Your task to perform on an android device: Open network settings Image 0: 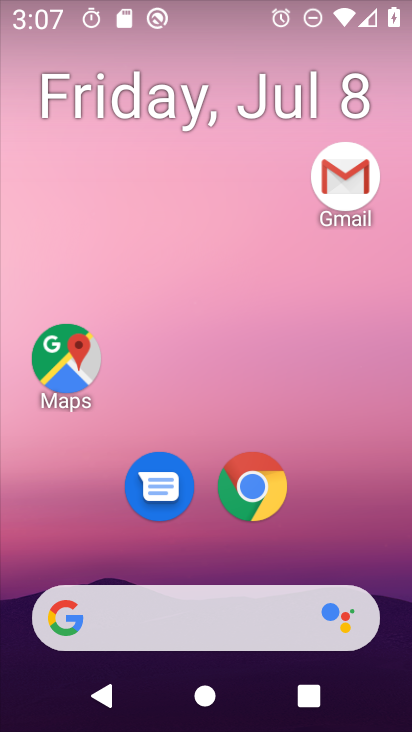
Step 0: drag from (331, 540) to (355, 111)
Your task to perform on an android device: Open network settings Image 1: 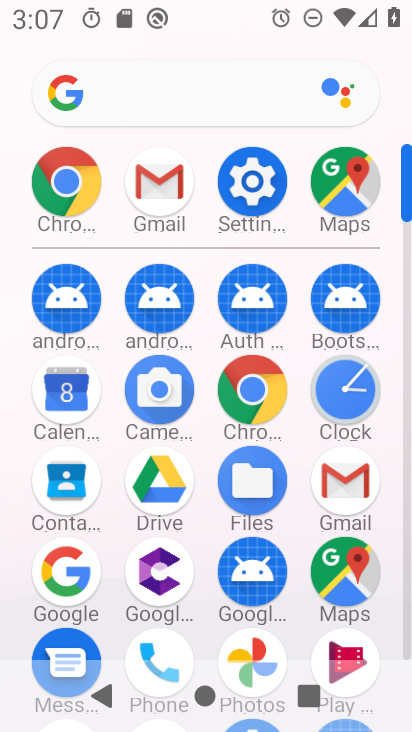
Step 1: click (265, 203)
Your task to perform on an android device: Open network settings Image 2: 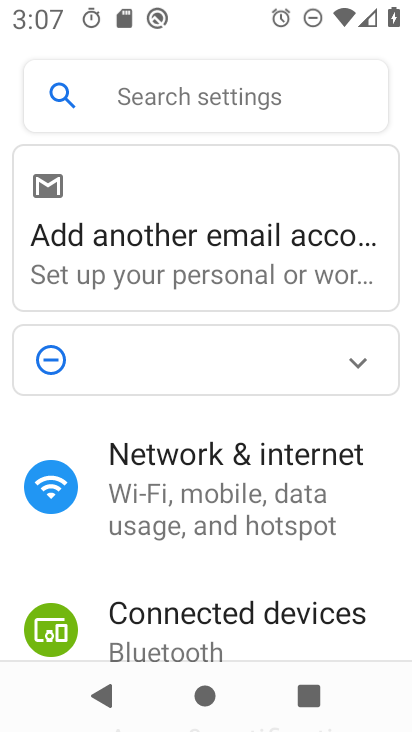
Step 2: drag from (359, 536) to (380, 334)
Your task to perform on an android device: Open network settings Image 3: 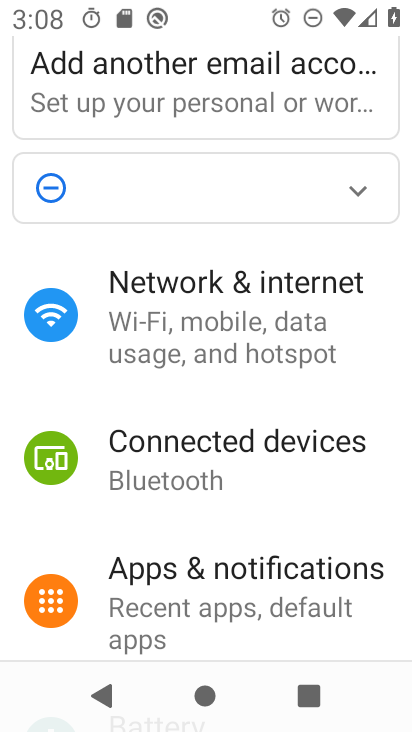
Step 3: drag from (380, 520) to (381, 309)
Your task to perform on an android device: Open network settings Image 4: 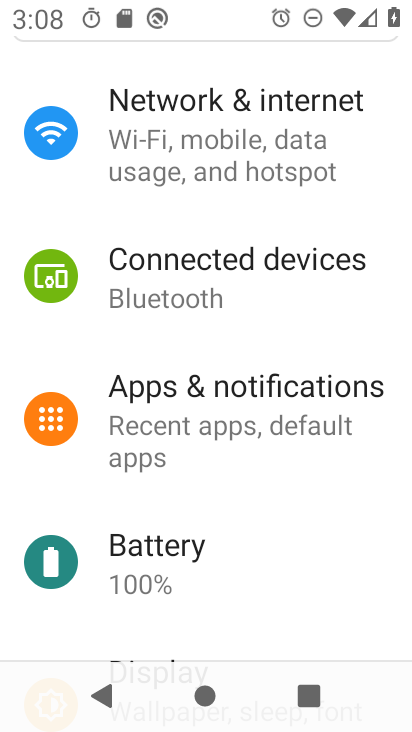
Step 4: drag from (354, 547) to (337, 416)
Your task to perform on an android device: Open network settings Image 5: 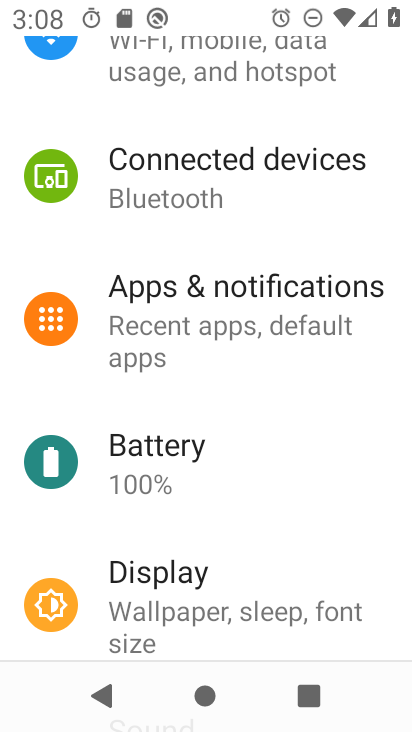
Step 5: drag from (350, 532) to (349, 376)
Your task to perform on an android device: Open network settings Image 6: 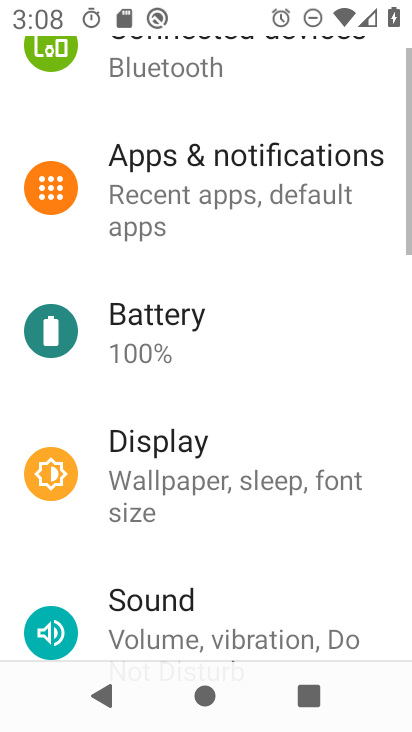
Step 6: drag from (342, 556) to (328, 359)
Your task to perform on an android device: Open network settings Image 7: 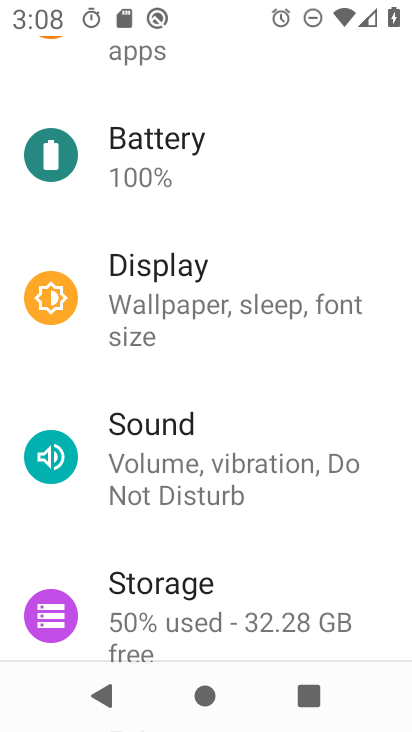
Step 7: drag from (346, 539) to (339, 295)
Your task to perform on an android device: Open network settings Image 8: 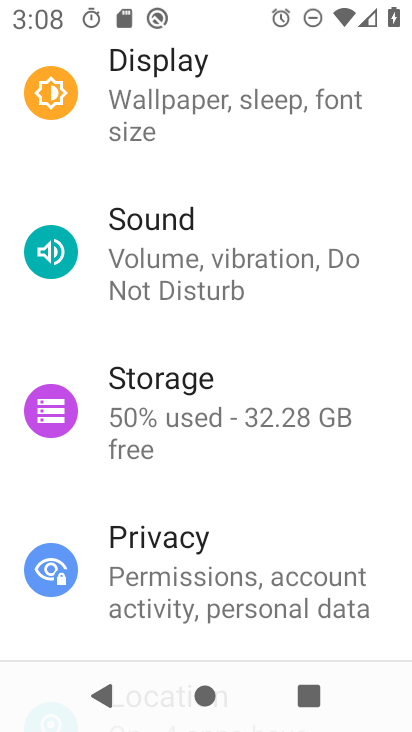
Step 8: drag from (361, 198) to (334, 396)
Your task to perform on an android device: Open network settings Image 9: 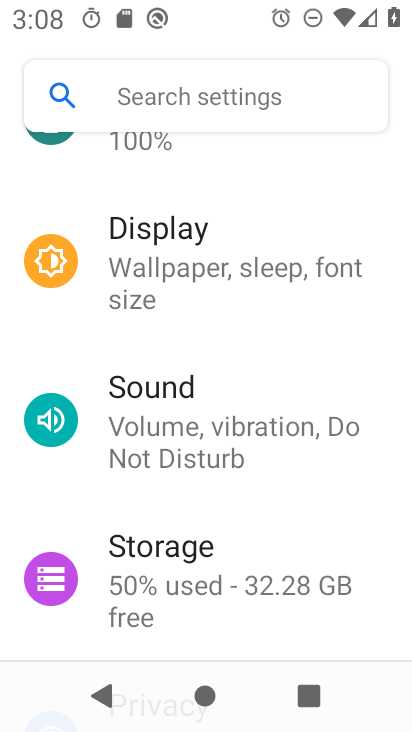
Step 9: drag from (362, 215) to (367, 396)
Your task to perform on an android device: Open network settings Image 10: 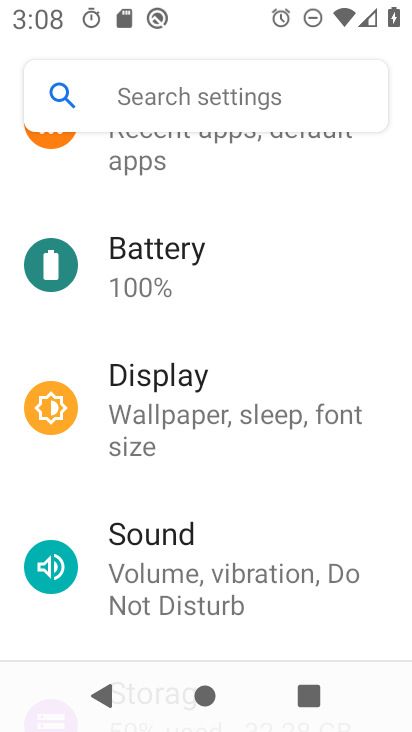
Step 10: drag from (349, 201) to (328, 463)
Your task to perform on an android device: Open network settings Image 11: 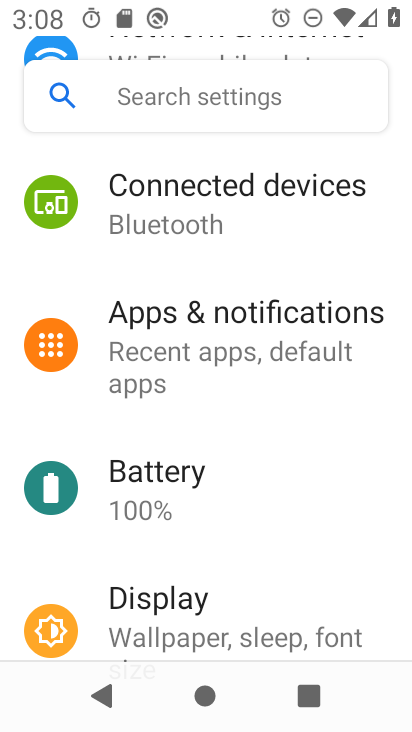
Step 11: drag from (326, 242) to (315, 501)
Your task to perform on an android device: Open network settings Image 12: 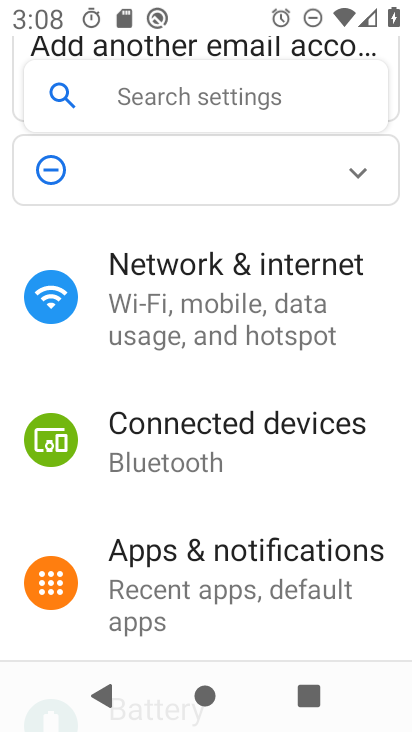
Step 12: click (288, 294)
Your task to perform on an android device: Open network settings Image 13: 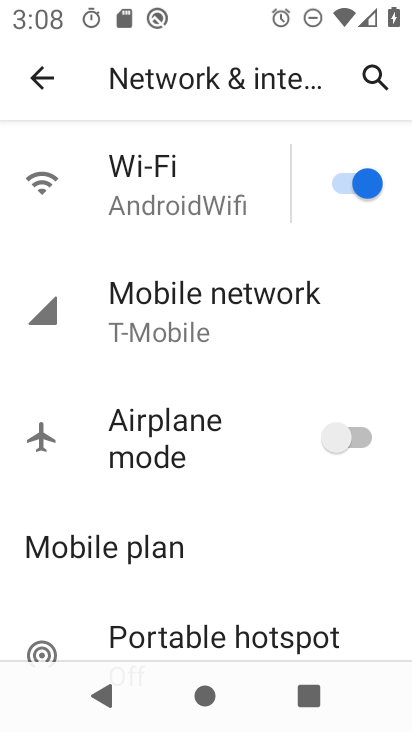
Step 13: task complete